Your task to perform on an android device: turn off smart reply in the gmail app Image 0: 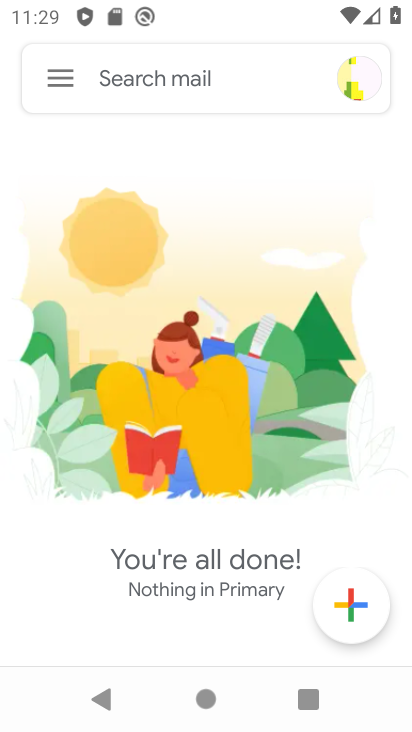
Step 0: click (58, 73)
Your task to perform on an android device: turn off smart reply in the gmail app Image 1: 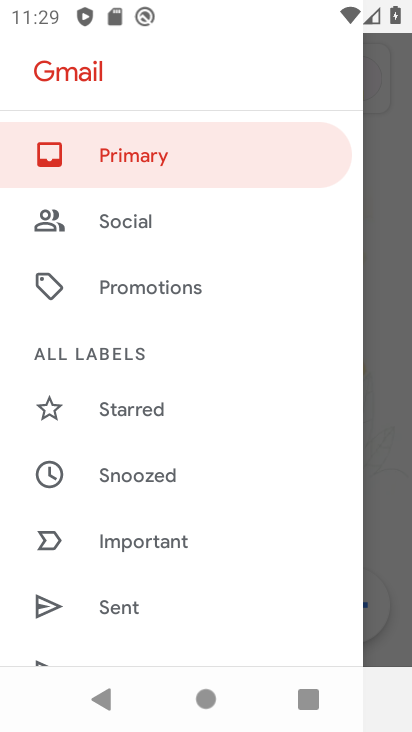
Step 1: drag from (137, 634) to (134, 257)
Your task to perform on an android device: turn off smart reply in the gmail app Image 2: 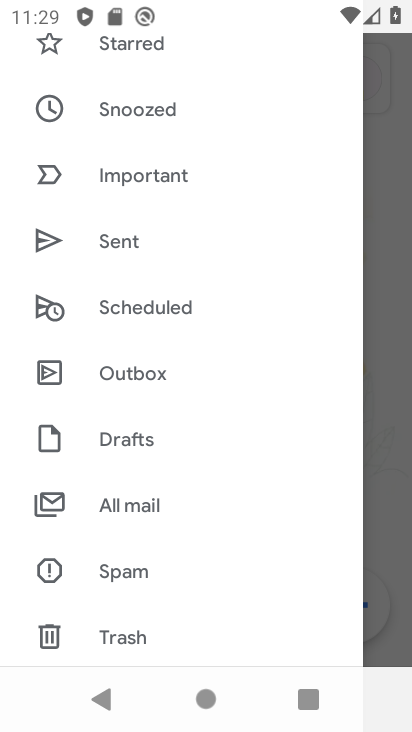
Step 2: drag from (155, 628) to (155, 156)
Your task to perform on an android device: turn off smart reply in the gmail app Image 3: 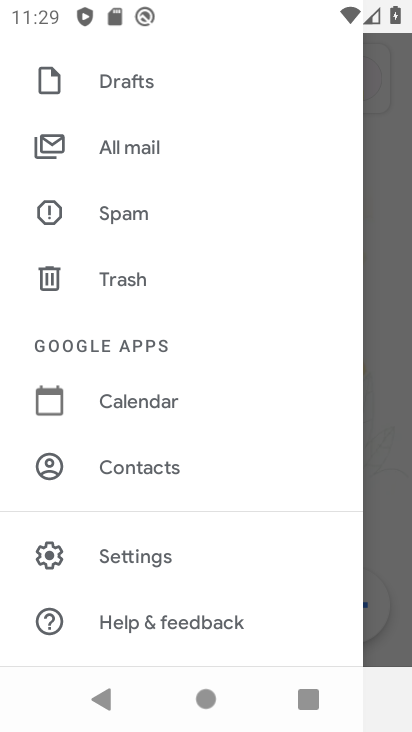
Step 3: click (162, 559)
Your task to perform on an android device: turn off smart reply in the gmail app Image 4: 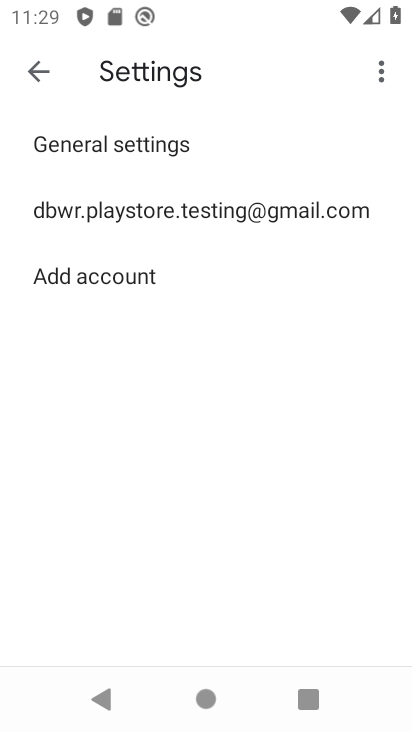
Step 4: click (204, 211)
Your task to perform on an android device: turn off smart reply in the gmail app Image 5: 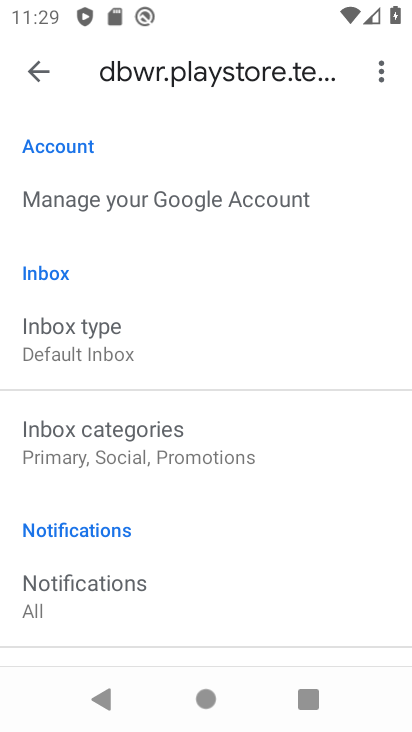
Step 5: drag from (157, 615) to (157, 244)
Your task to perform on an android device: turn off smart reply in the gmail app Image 6: 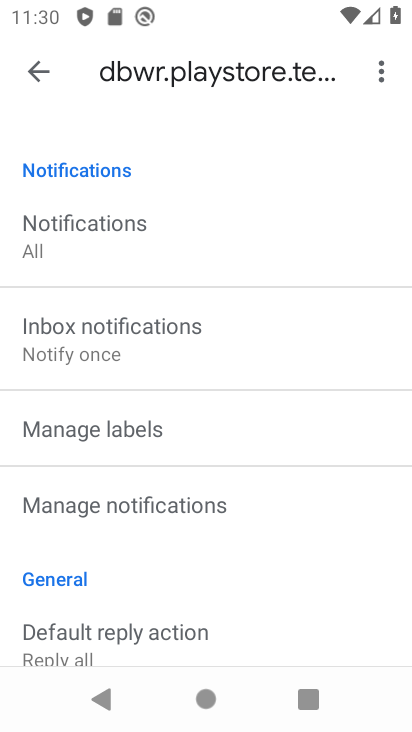
Step 6: drag from (161, 606) to (161, 240)
Your task to perform on an android device: turn off smart reply in the gmail app Image 7: 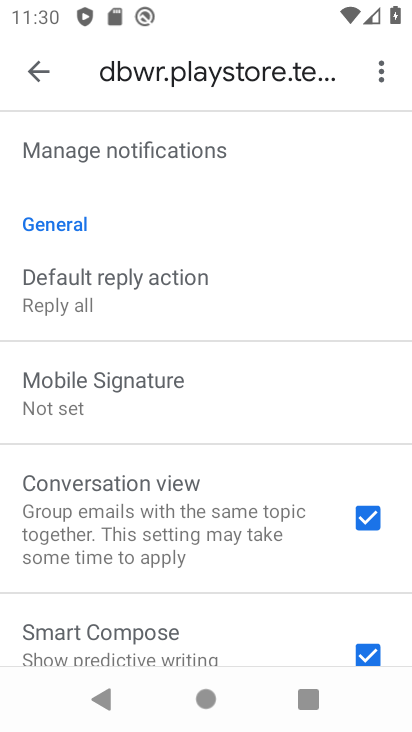
Step 7: drag from (170, 635) to (170, 263)
Your task to perform on an android device: turn off smart reply in the gmail app Image 8: 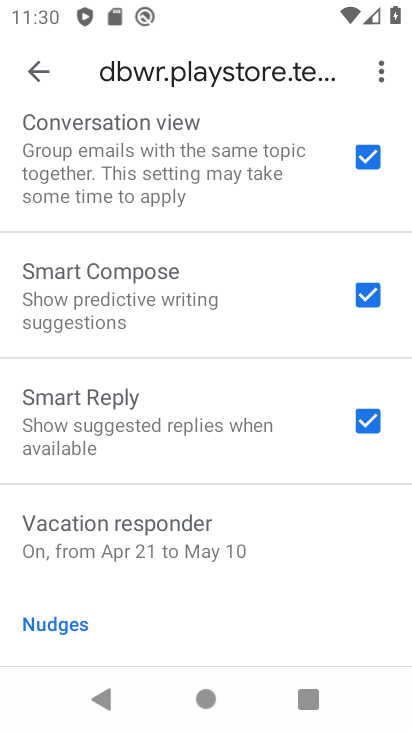
Step 8: click (371, 420)
Your task to perform on an android device: turn off smart reply in the gmail app Image 9: 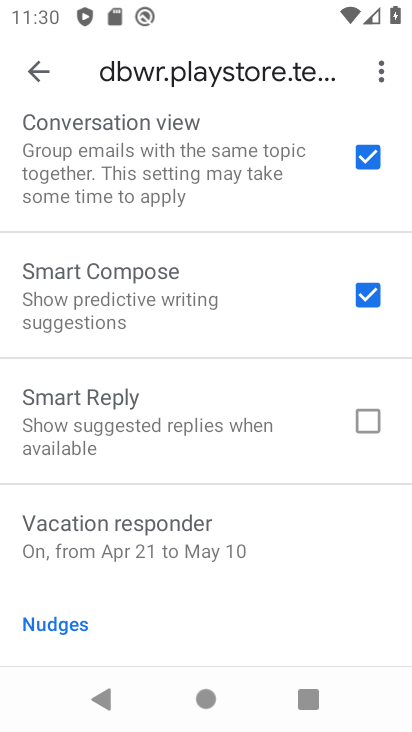
Step 9: task complete